Your task to perform on an android device: Open maps Image 0: 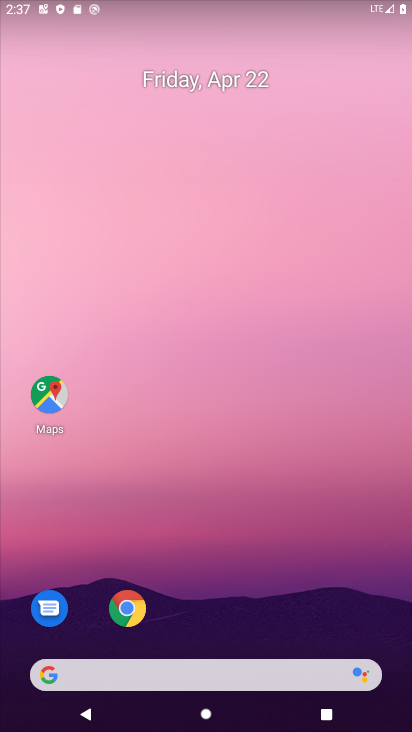
Step 0: click (288, 221)
Your task to perform on an android device: Open maps Image 1: 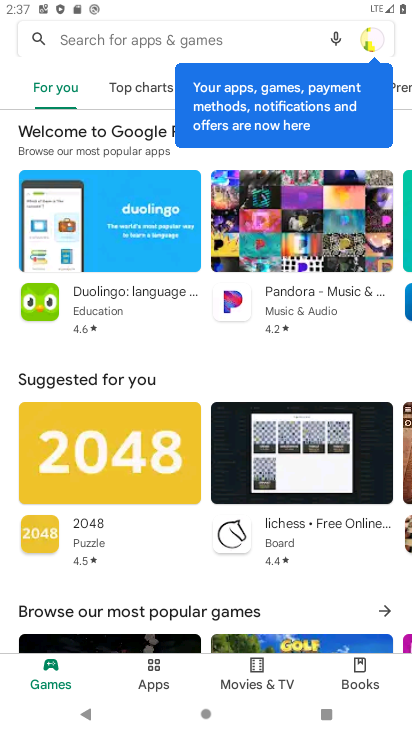
Step 1: press home button
Your task to perform on an android device: Open maps Image 2: 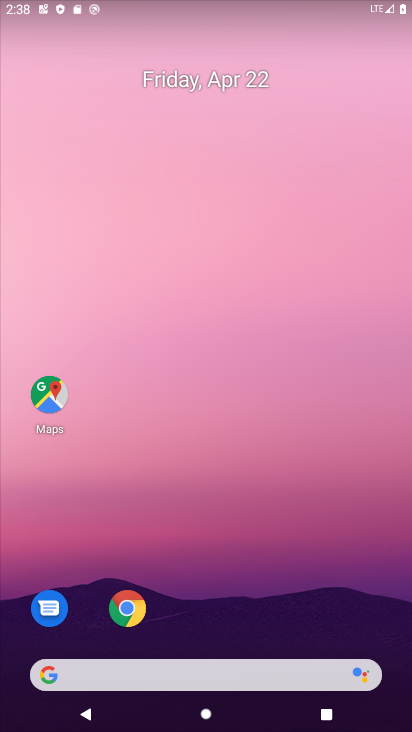
Step 2: drag from (211, 687) to (323, 105)
Your task to perform on an android device: Open maps Image 3: 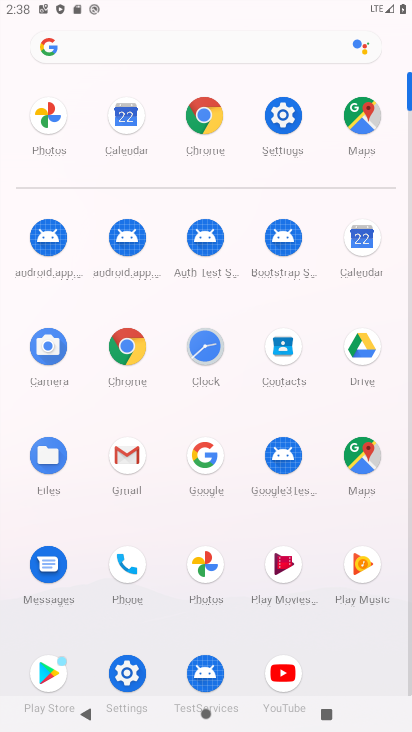
Step 3: click (367, 118)
Your task to perform on an android device: Open maps Image 4: 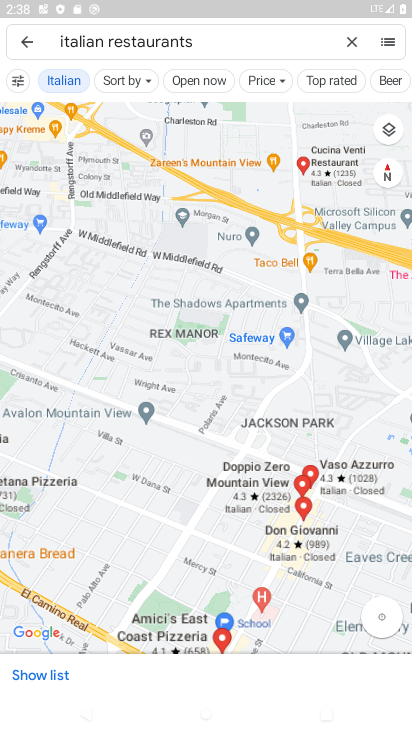
Step 4: click (33, 48)
Your task to perform on an android device: Open maps Image 5: 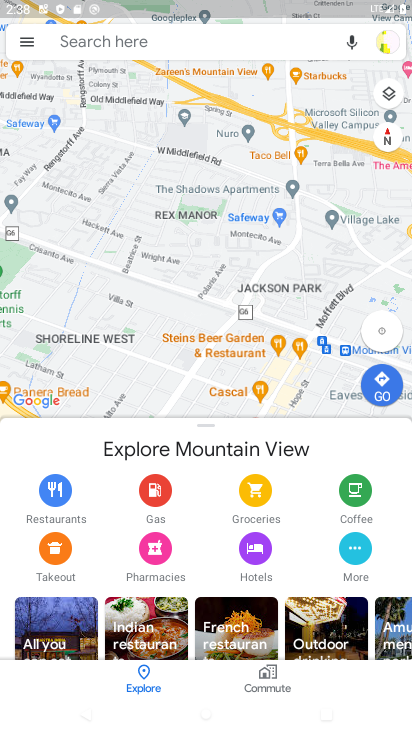
Step 5: click (378, 336)
Your task to perform on an android device: Open maps Image 6: 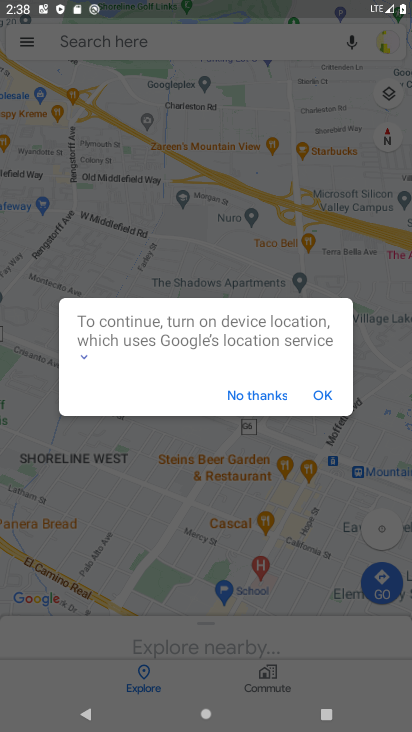
Step 6: click (238, 396)
Your task to perform on an android device: Open maps Image 7: 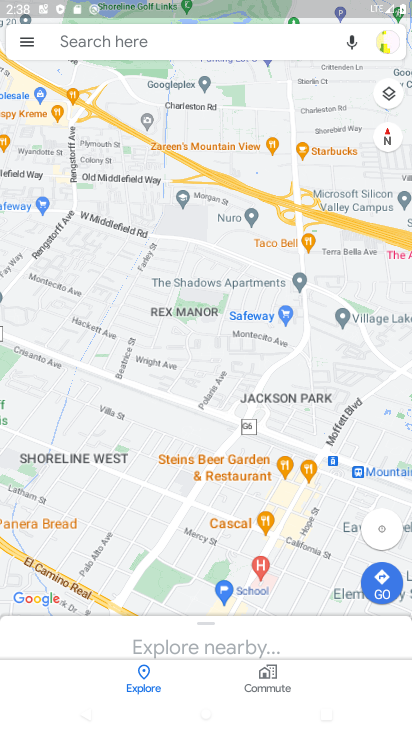
Step 7: task complete